Your task to perform on an android device: Find coffee shops on Maps Image 0: 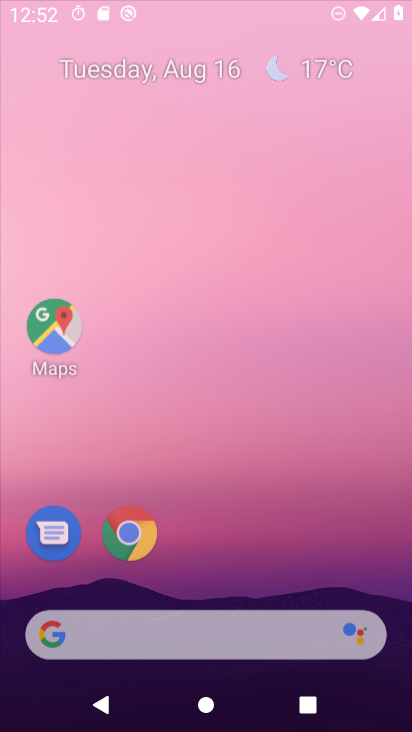
Step 0: click (213, 278)
Your task to perform on an android device: Find coffee shops on Maps Image 1: 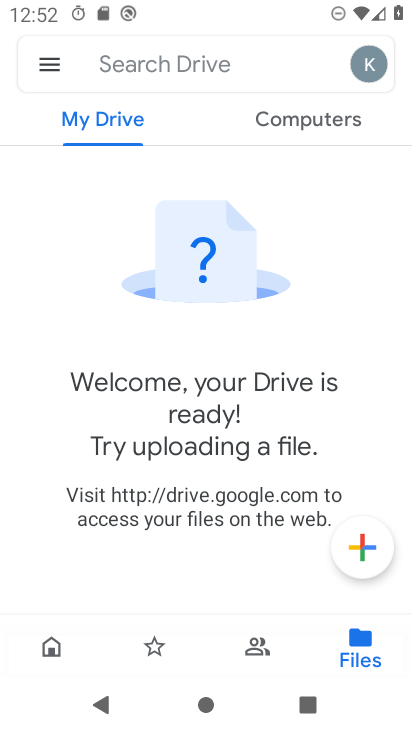
Step 1: press home button
Your task to perform on an android device: Find coffee shops on Maps Image 2: 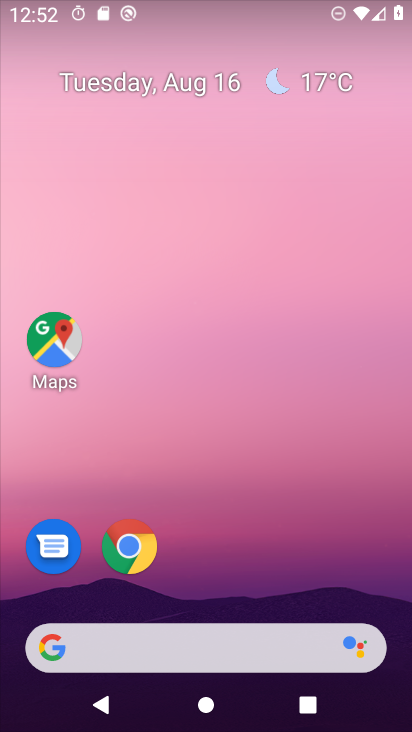
Step 2: drag from (248, 562) to (245, 284)
Your task to perform on an android device: Find coffee shops on Maps Image 3: 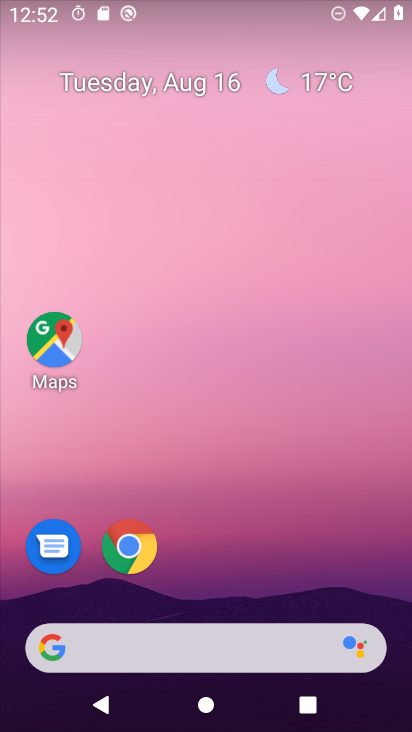
Step 3: click (49, 340)
Your task to perform on an android device: Find coffee shops on Maps Image 4: 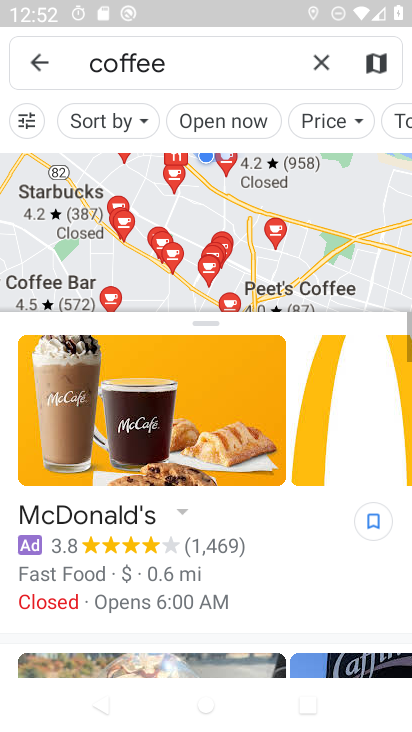
Step 4: click (186, 65)
Your task to perform on an android device: Find coffee shops on Maps Image 5: 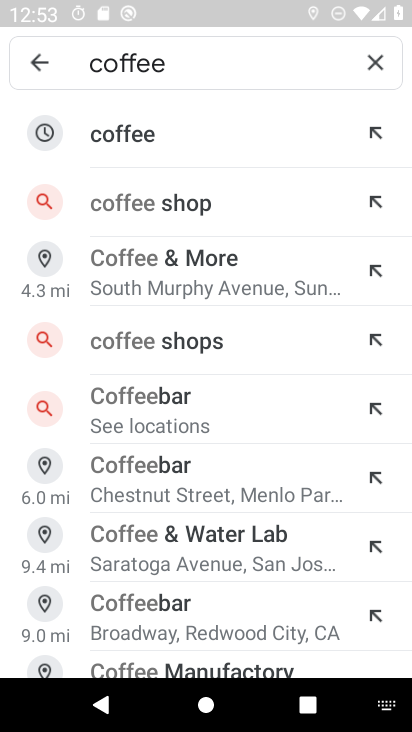
Step 5: type "  shops"
Your task to perform on an android device: Find coffee shops on Maps Image 6: 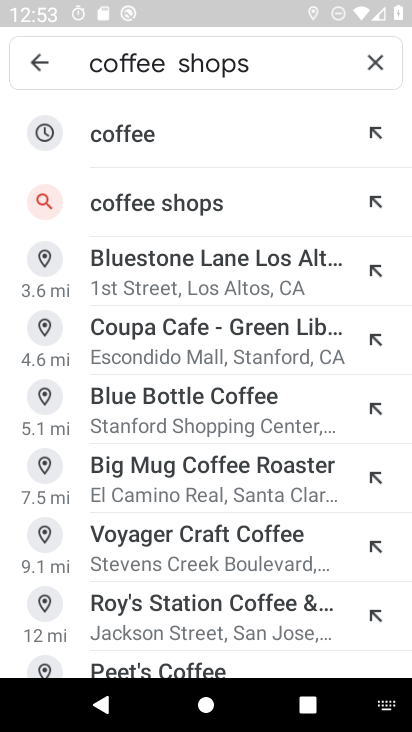
Step 6: click (188, 202)
Your task to perform on an android device: Find coffee shops on Maps Image 7: 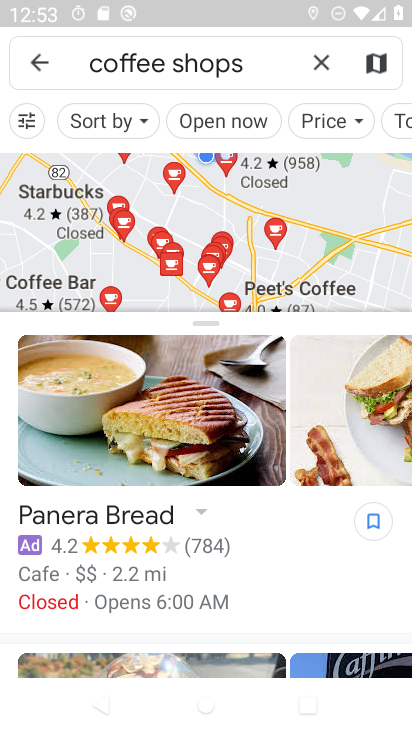
Step 7: task complete